Your task to perform on an android device: Do I have any events tomorrow? Image 0: 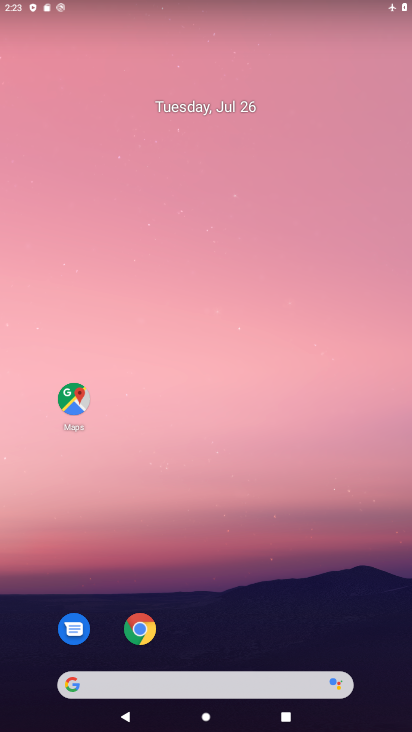
Step 0: drag from (201, 7) to (246, 4)
Your task to perform on an android device: Do I have any events tomorrow? Image 1: 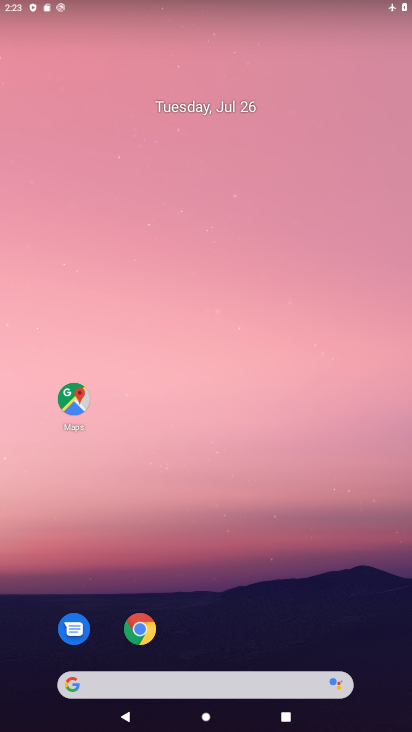
Step 1: click (297, 237)
Your task to perform on an android device: Do I have any events tomorrow? Image 2: 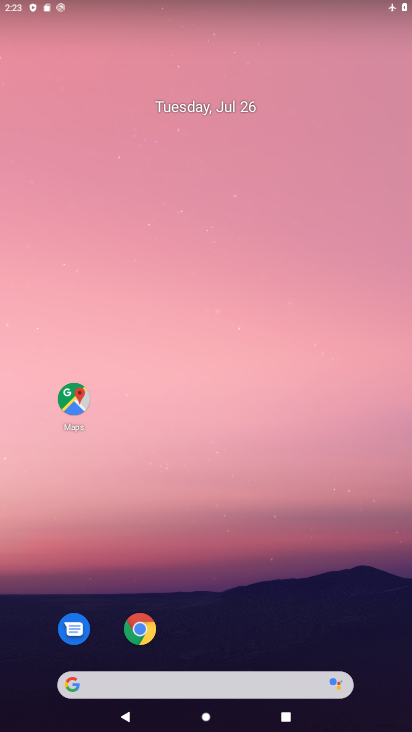
Step 2: drag from (261, 585) to (259, 140)
Your task to perform on an android device: Do I have any events tomorrow? Image 3: 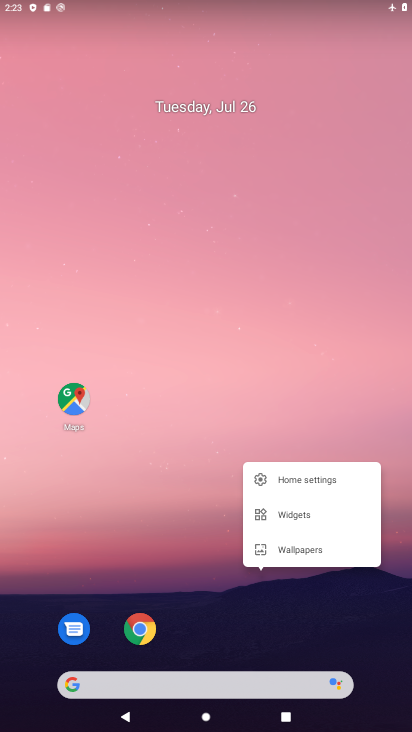
Step 3: click (259, 140)
Your task to perform on an android device: Do I have any events tomorrow? Image 4: 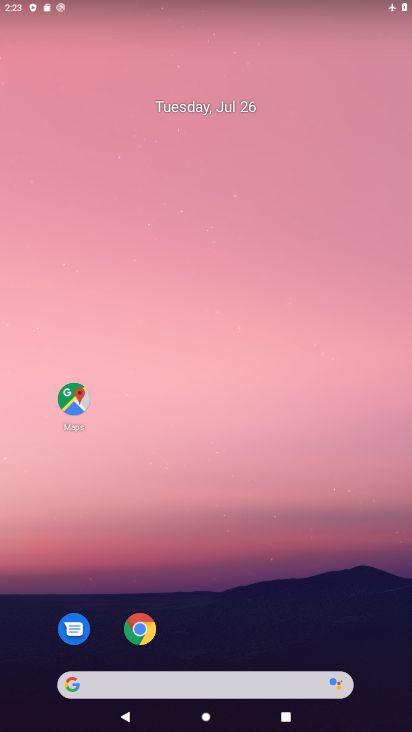
Step 4: drag from (257, 627) to (280, 221)
Your task to perform on an android device: Do I have any events tomorrow? Image 5: 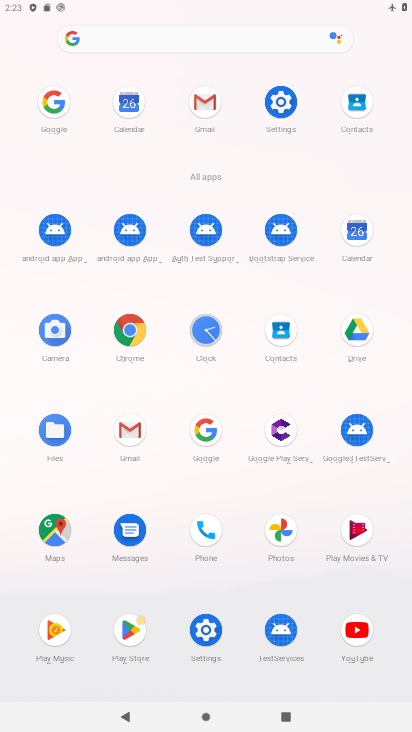
Step 5: click (355, 221)
Your task to perform on an android device: Do I have any events tomorrow? Image 6: 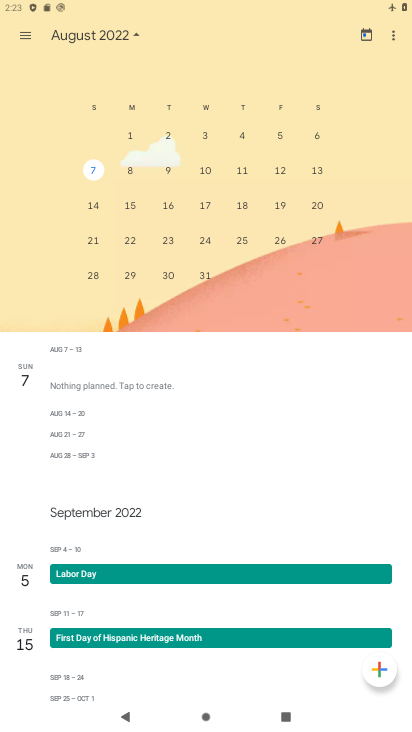
Step 6: drag from (47, 235) to (395, 214)
Your task to perform on an android device: Do I have any events tomorrow? Image 7: 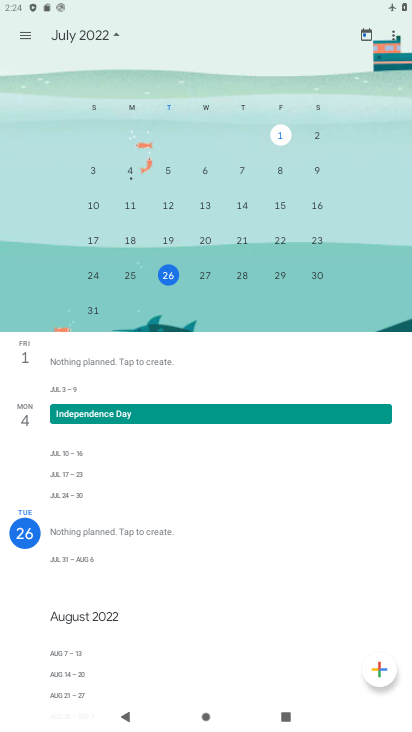
Step 7: click (205, 276)
Your task to perform on an android device: Do I have any events tomorrow? Image 8: 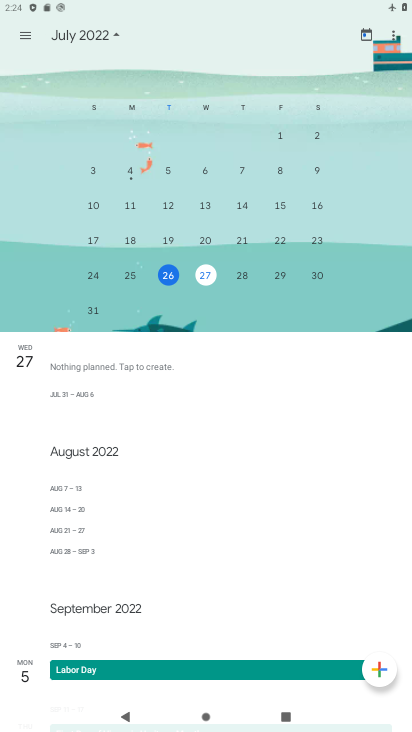
Step 8: task complete